Your task to perform on an android device: change timer sound Image 0: 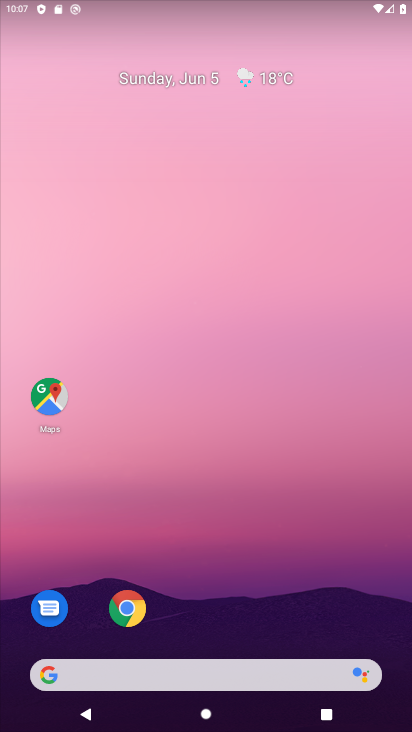
Step 0: task complete